Your task to perform on an android device: turn smart compose on in the gmail app Image 0: 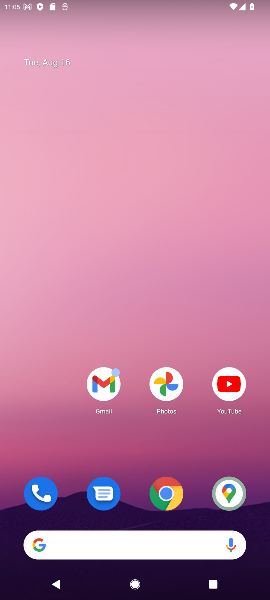
Step 0: drag from (140, 449) to (118, 208)
Your task to perform on an android device: turn smart compose on in the gmail app Image 1: 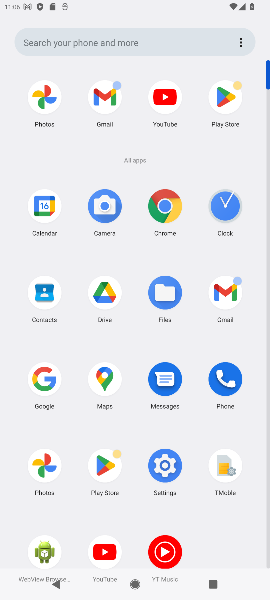
Step 1: click (221, 286)
Your task to perform on an android device: turn smart compose on in the gmail app Image 2: 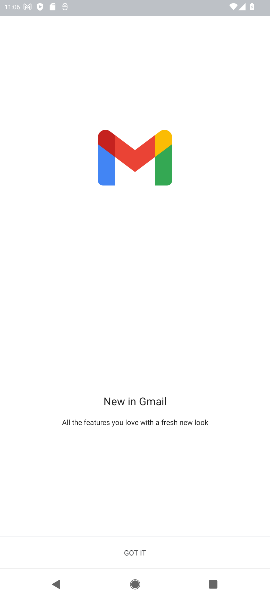
Step 2: click (145, 548)
Your task to perform on an android device: turn smart compose on in the gmail app Image 3: 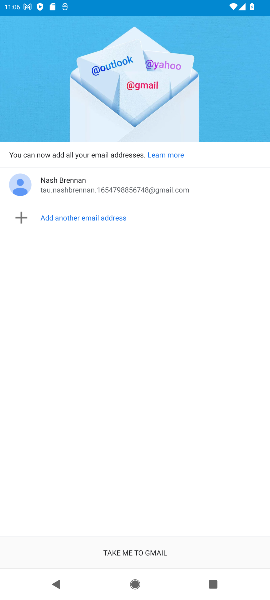
Step 3: click (145, 553)
Your task to perform on an android device: turn smart compose on in the gmail app Image 4: 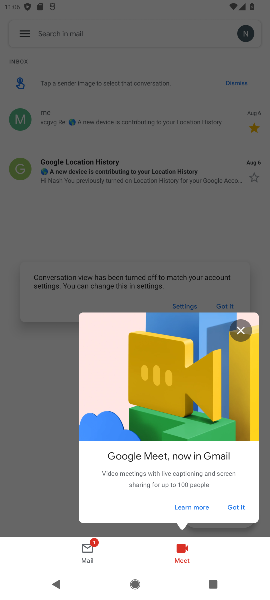
Step 4: click (241, 328)
Your task to perform on an android device: turn smart compose on in the gmail app Image 5: 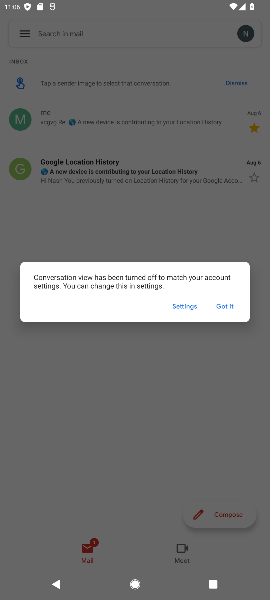
Step 5: click (215, 310)
Your task to perform on an android device: turn smart compose on in the gmail app Image 6: 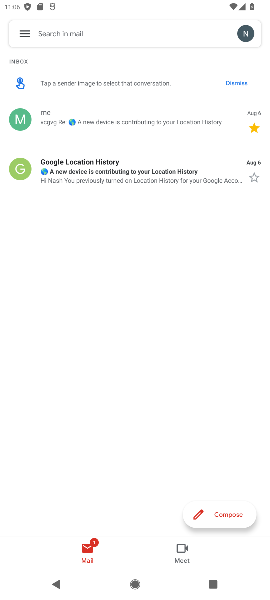
Step 6: click (16, 29)
Your task to perform on an android device: turn smart compose on in the gmail app Image 7: 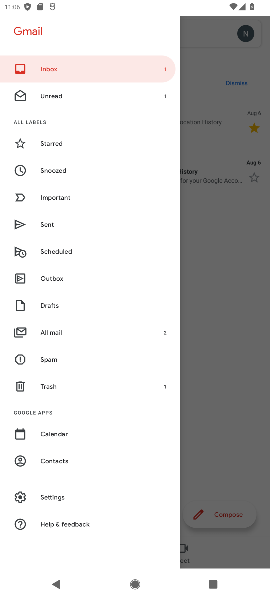
Step 7: click (52, 495)
Your task to perform on an android device: turn smart compose on in the gmail app Image 8: 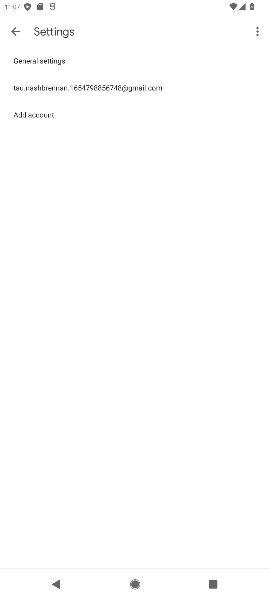
Step 8: click (69, 81)
Your task to perform on an android device: turn smart compose on in the gmail app Image 9: 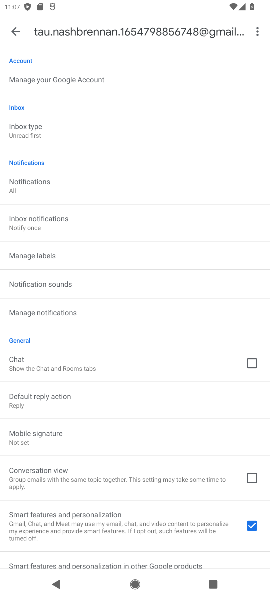
Step 9: task complete